Your task to perform on an android device: Open Google Maps Image 0: 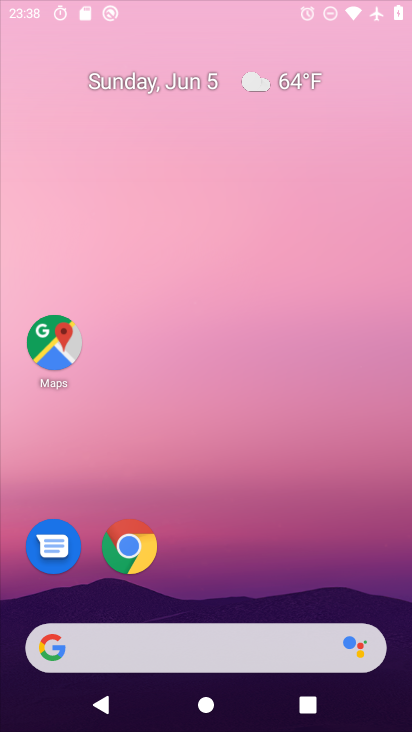
Step 0: drag from (190, 578) to (185, 165)
Your task to perform on an android device: Open Google Maps Image 1: 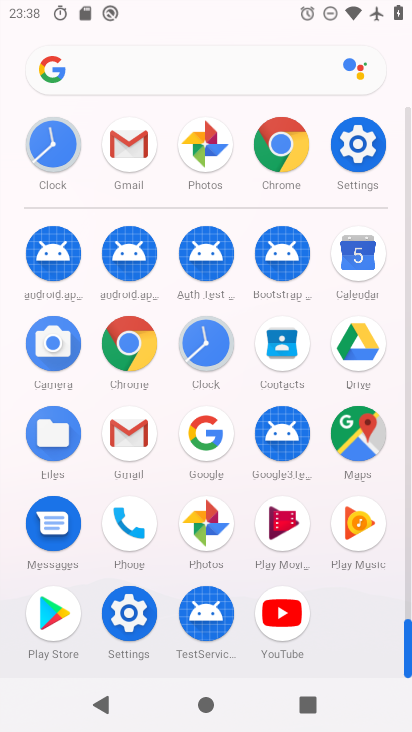
Step 1: click (354, 431)
Your task to perform on an android device: Open Google Maps Image 2: 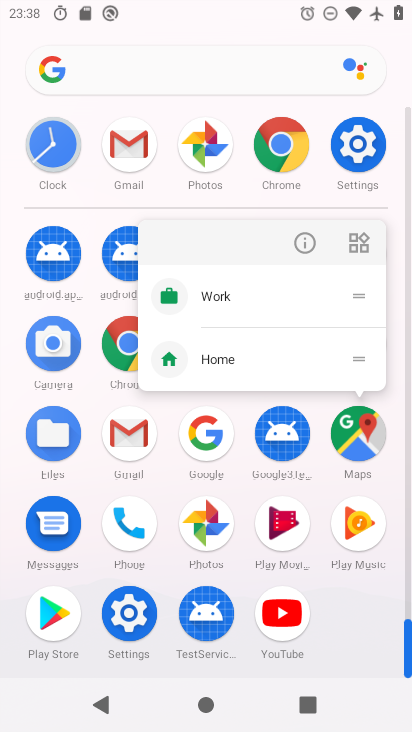
Step 2: click (308, 239)
Your task to perform on an android device: Open Google Maps Image 3: 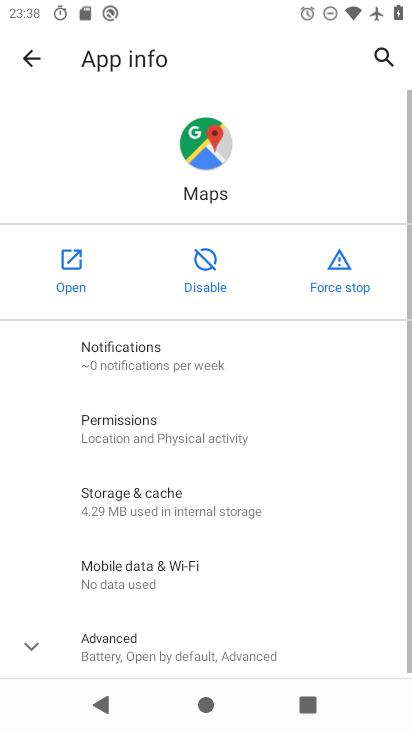
Step 3: click (41, 240)
Your task to perform on an android device: Open Google Maps Image 4: 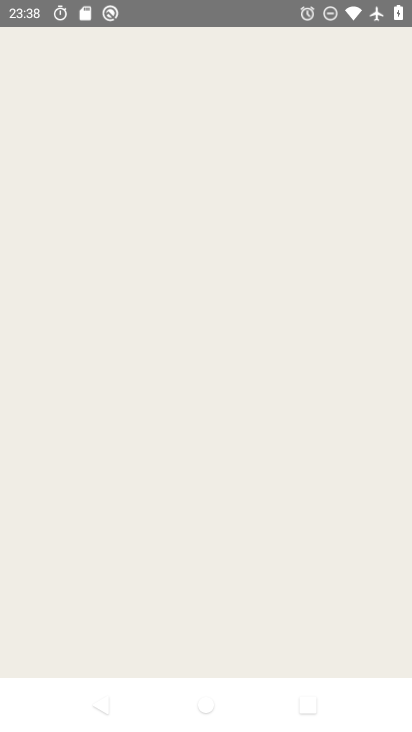
Step 4: task complete